Your task to perform on an android device: Search for pizza restaurants on Maps Image 0: 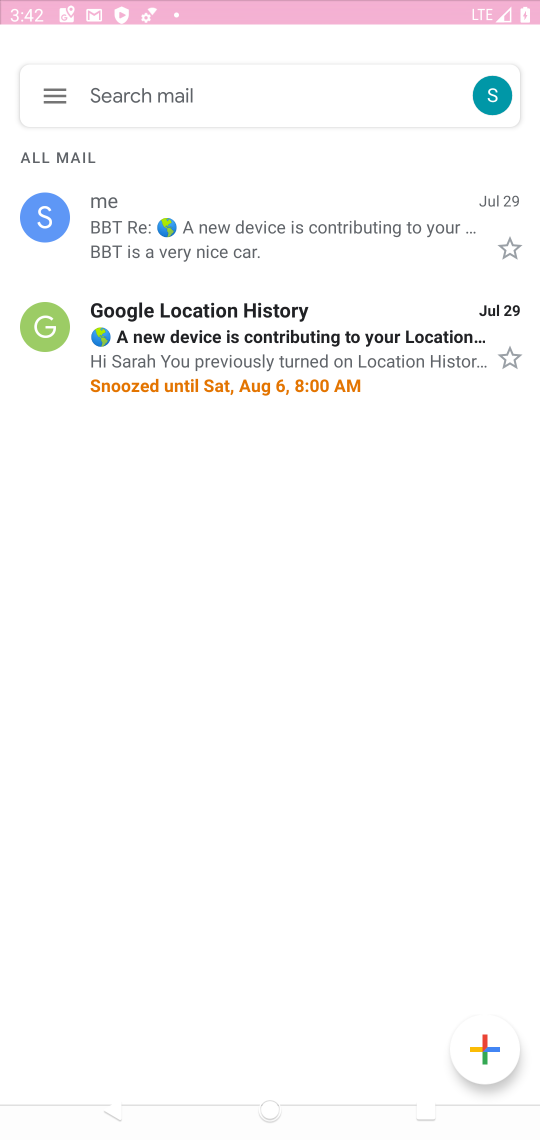
Step 0: press home button
Your task to perform on an android device: Search for pizza restaurants on Maps Image 1: 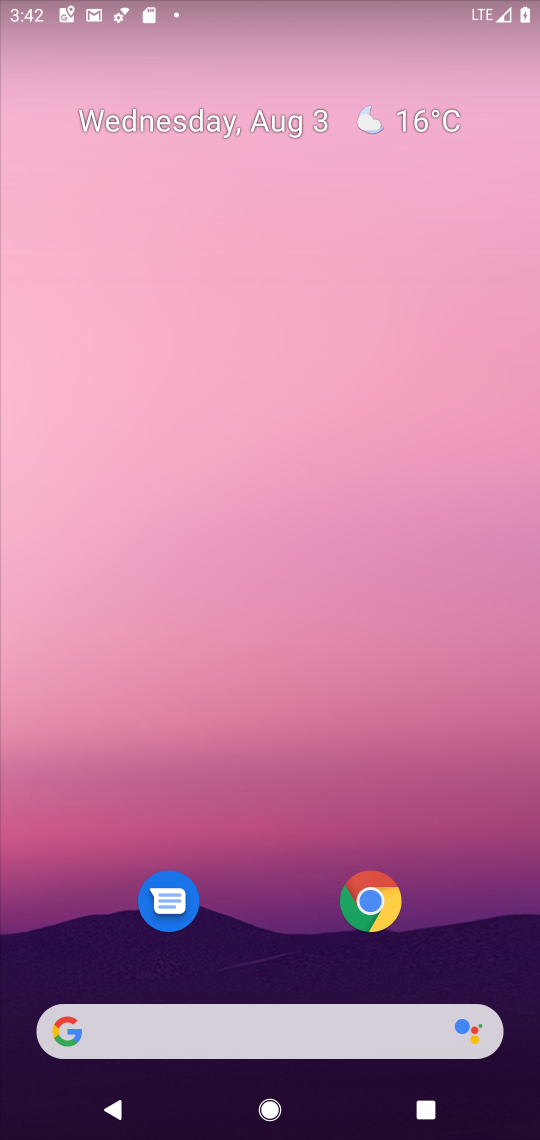
Step 1: drag from (255, 876) to (360, 308)
Your task to perform on an android device: Search for pizza restaurants on Maps Image 2: 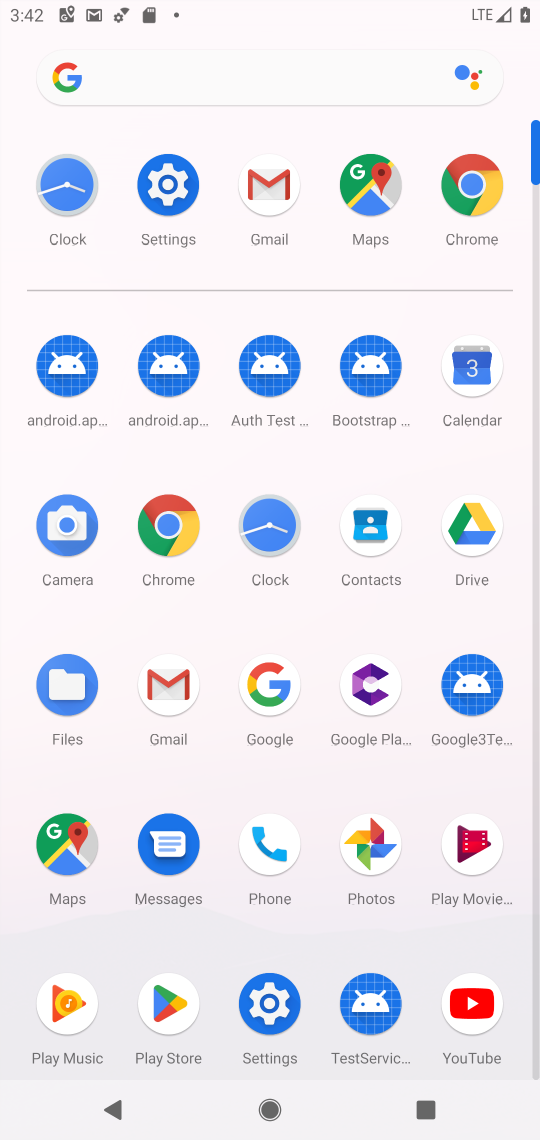
Step 2: click (48, 839)
Your task to perform on an android device: Search for pizza restaurants on Maps Image 3: 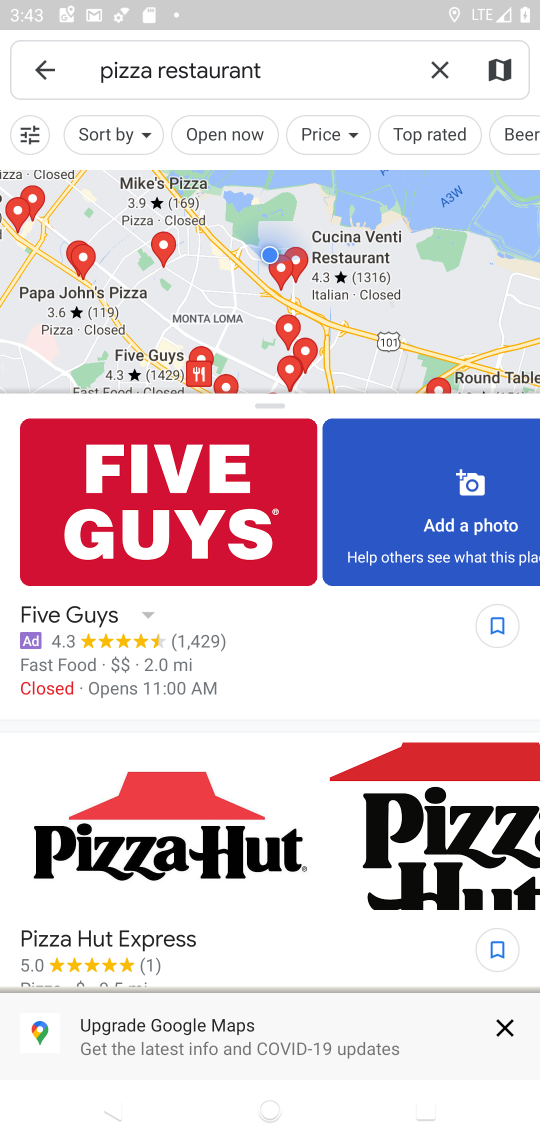
Step 3: task complete